Your task to perform on an android device: set an alarm Image 0: 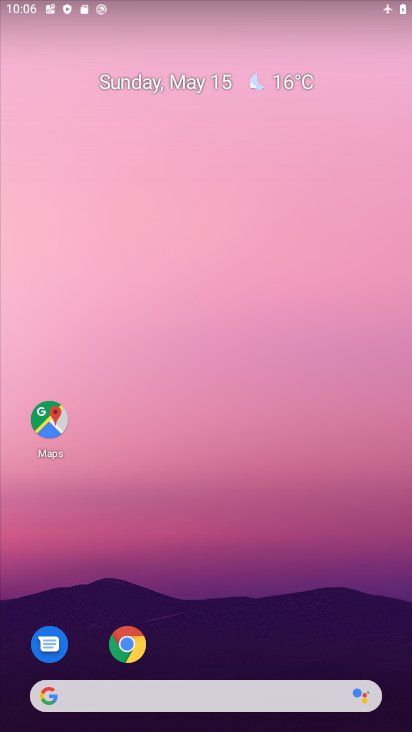
Step 0: drag from (302, 558) to (364, 44)
Your task to perform on an android device: set an alarm Image 1: 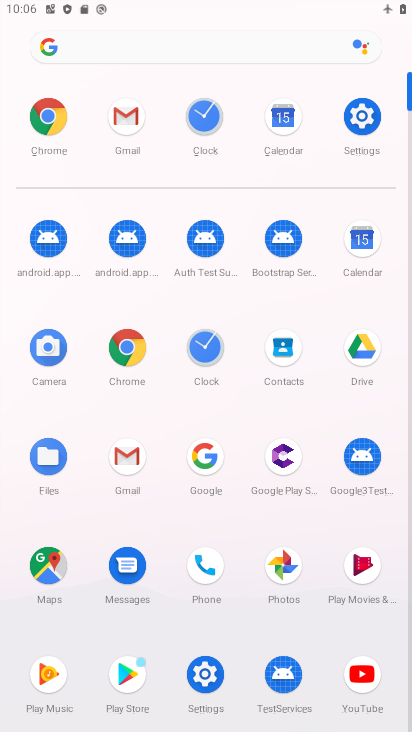
Step 1: click (200, 349)
Your task to perform on an android device: set an alarm Image 2: 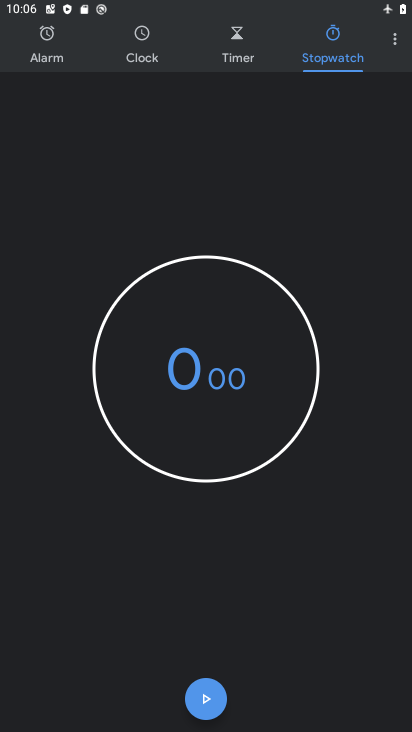
Step 2: click (43, 52)
Your task to perform on an android device: set an alarm Image 3: 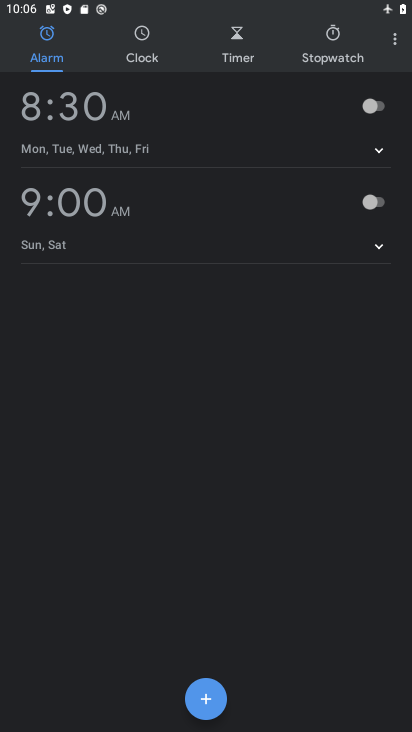
Step 3: click (365, 102)
Your task to perform on an android device: set an alarm Image 4: 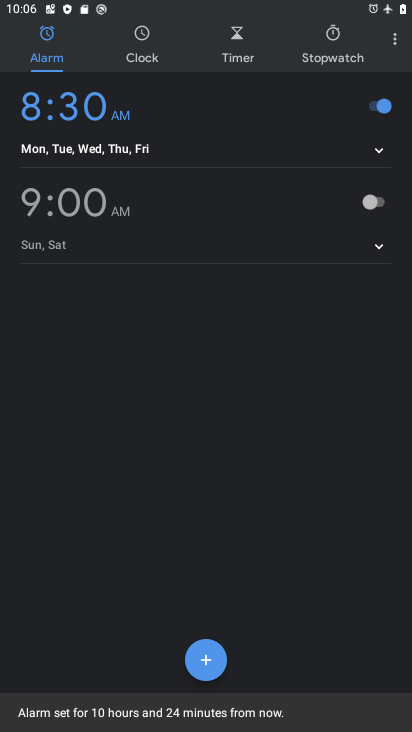
Step 4: task complete